Your task to perform on an android device: Google the capital of Bolivia Image 0: 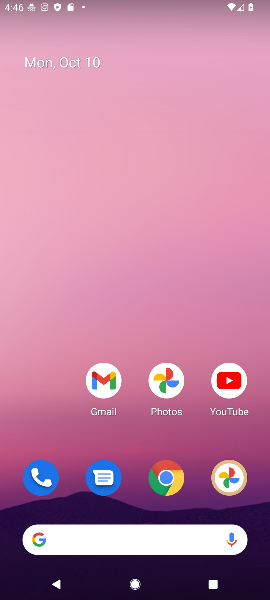
Step 0: click (158, 476)
Your task to perform on an android device: Google the capital of Bolivia Image 1: 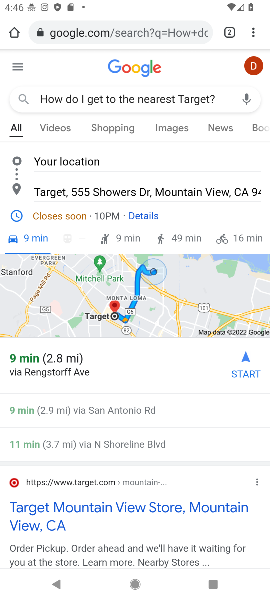
Step 1: click (124, 31)
Your task to perform on an android device: Google the capital of Bolivia Image 2: 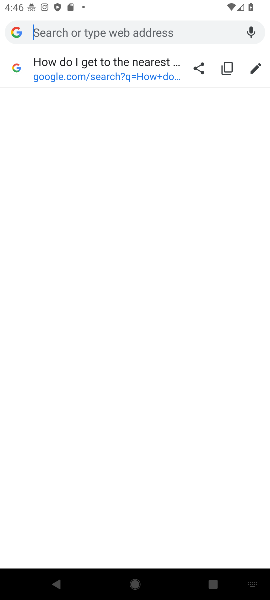
Step 2: type "capital of Bolivia"
Your task to perform on an android device: Google the capital of Bolivia Image 3: 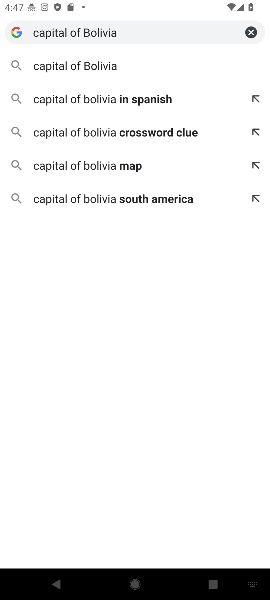
Step 3: click (117, 66)
Your task to perform on an android device: Google the capital of Bolivia Image 4: 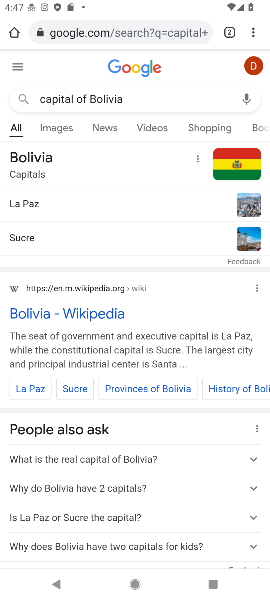
Step 4: task complete